Your task to perform on an android device: open sync settings in chrome Image 0: 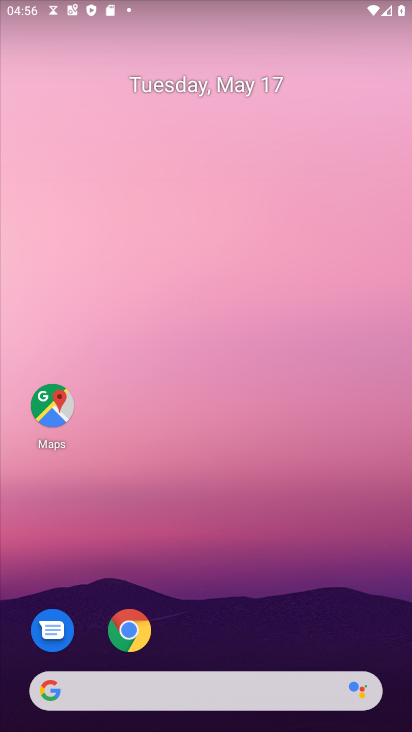
Step 0: click (144, 623)
Your task to perform on an android device: open sync settings in chrome Image 1: 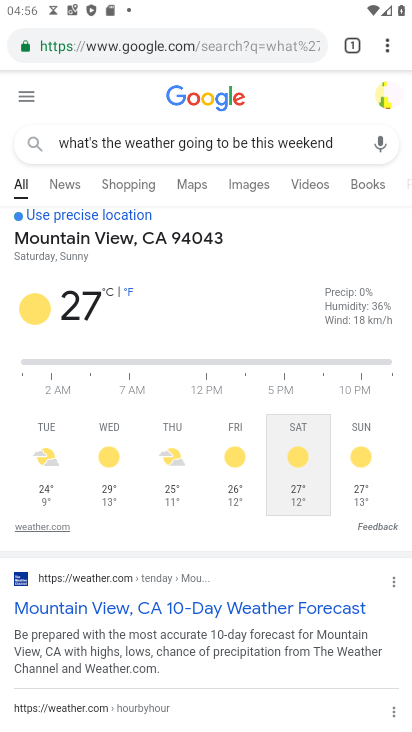
Step 1: drag from (382, 40) to (244, 513)
Your task to perform on an android device: open sync settings in chrome Image 2: 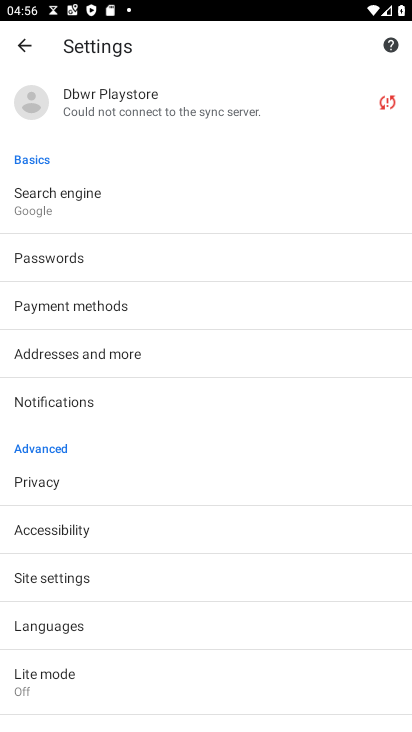
Step 2: click (173, 107)
Your task to perform on an android device: open sync settings in chrome Image 3: 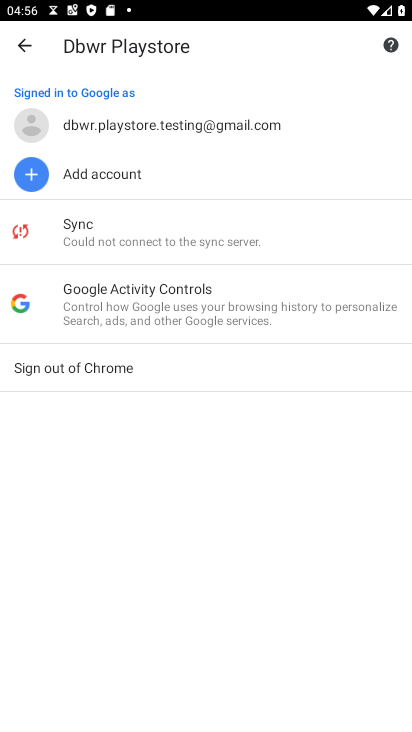
Step 3: click (27, 49)
Your task to perform on an android device: open sync settings in chrome Image 4: 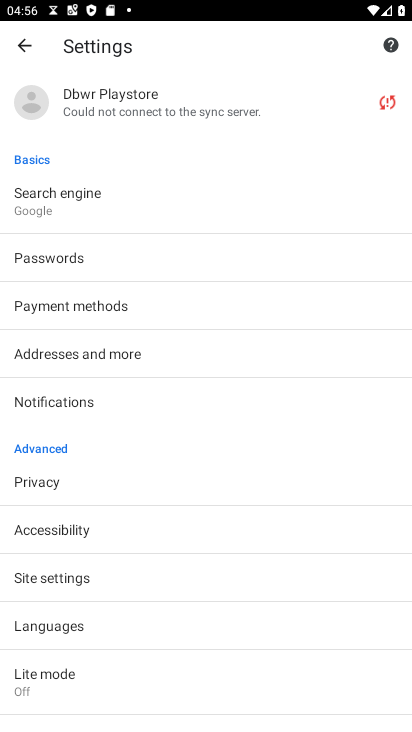
Step 4: click (85, 94)
Your task to perform on an android device: open sync settings in chrome Image 5: 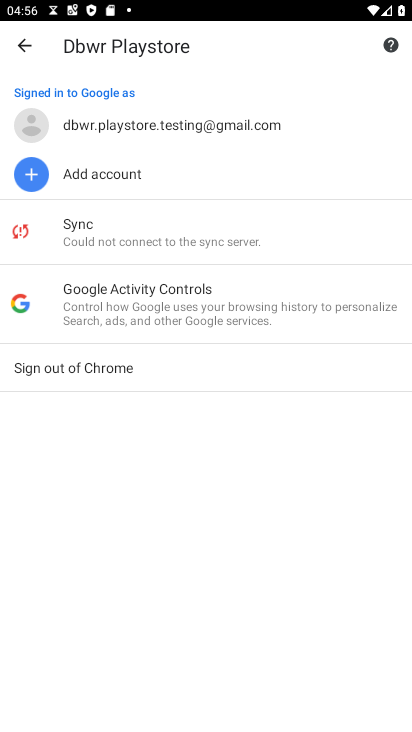
Step 5: click (115, 236)
Your task to perform on an android device: open sync settings in chrome Image 6: 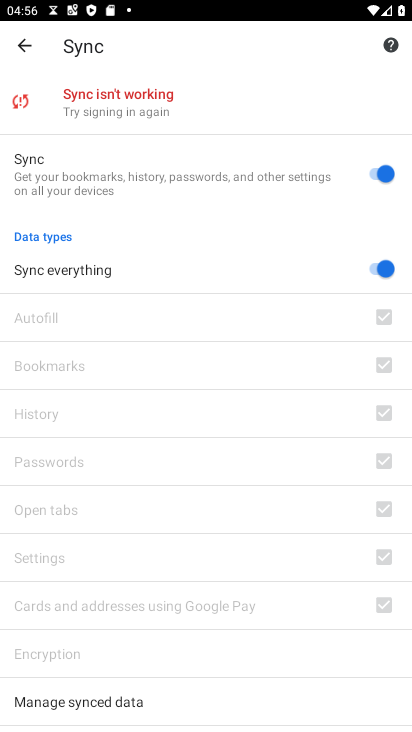
Step 6: task complete